Your task to perform on an android device: Open notification settings Image 0: 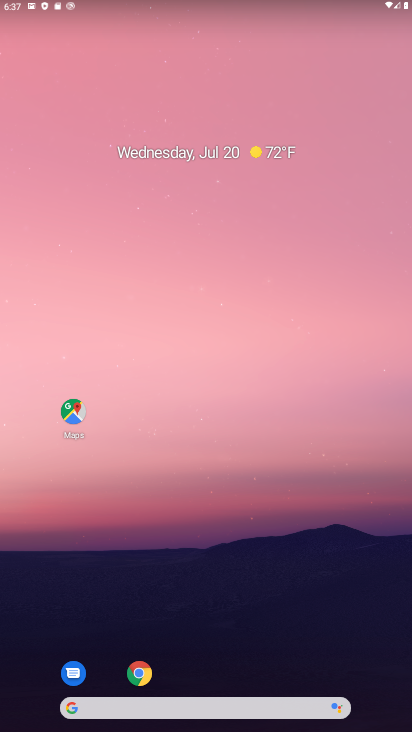
Step 0: drag from (338, 672) to (93, 52)
Your task to perform on an android device: Open notification settings Image 1: 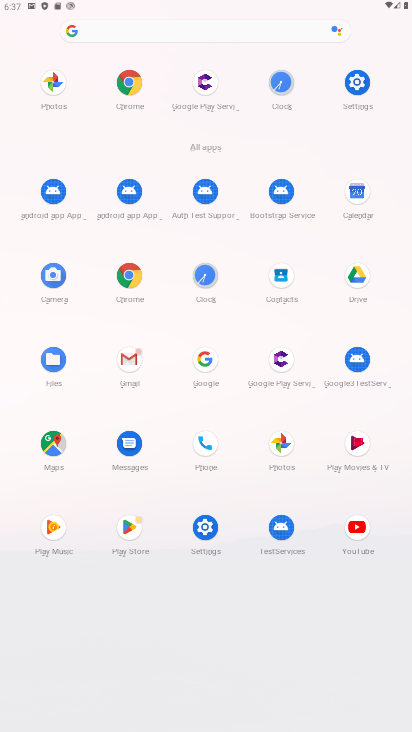
Step 1: click (205, 520)
Your task to perform on an android device: Open notification settings Image 2: 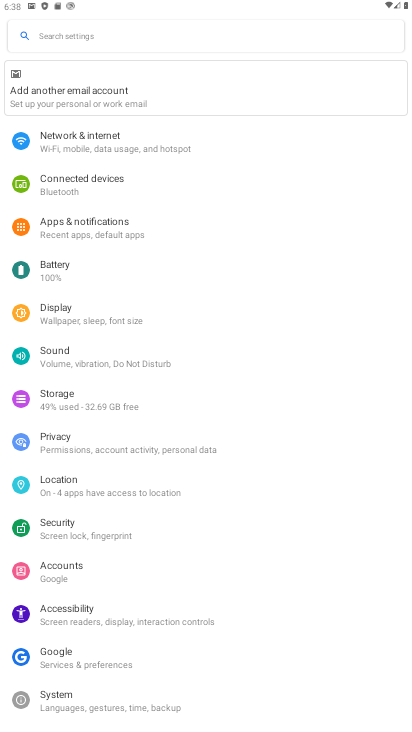
Step 2: click (99, 233)
Your task to perform on an android device: Open notification settings Image 3: 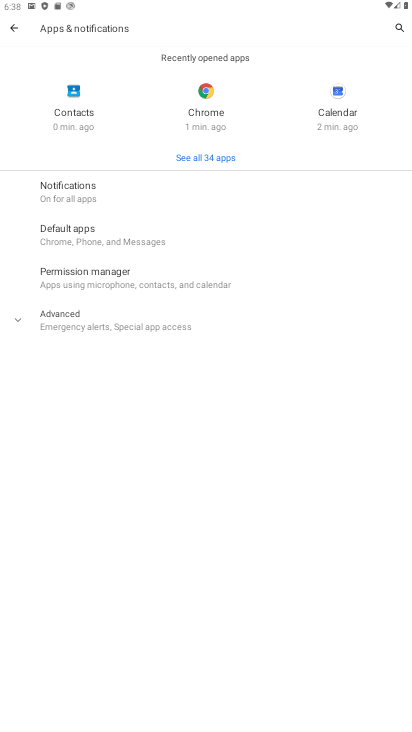
Step 3: click (90, 201)
Your task to perform on an android device: Open notification settings Image 4: 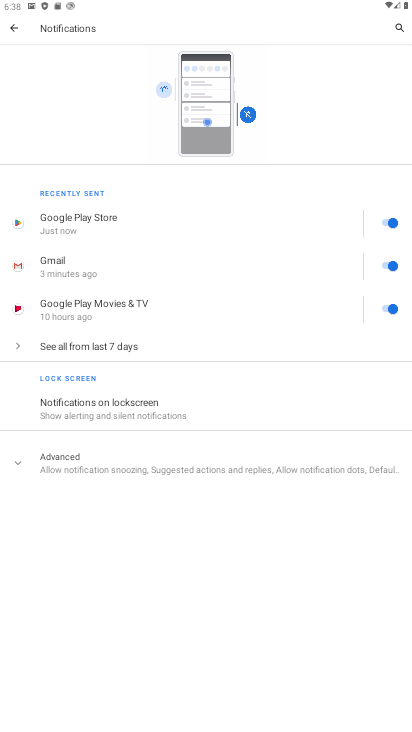
Step 4: task complete